Your task to perform on an android device: stop showing notifications on the lock screen Image 0: 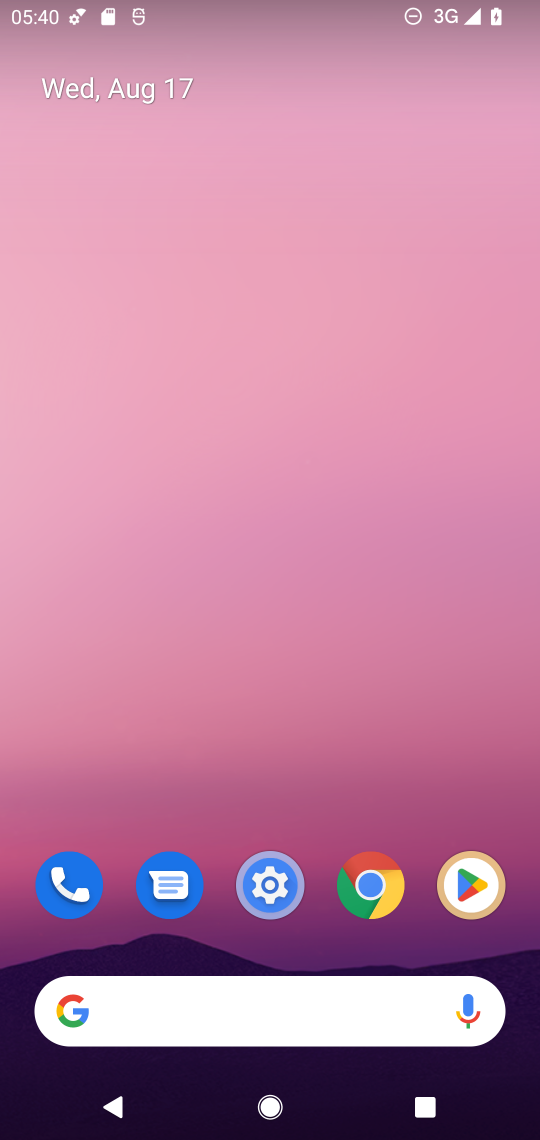
Step 0: drag from (308, 799) to (410, 144)
Your task to perform on an android device: stop showing notifications on the lock screen Image 1: 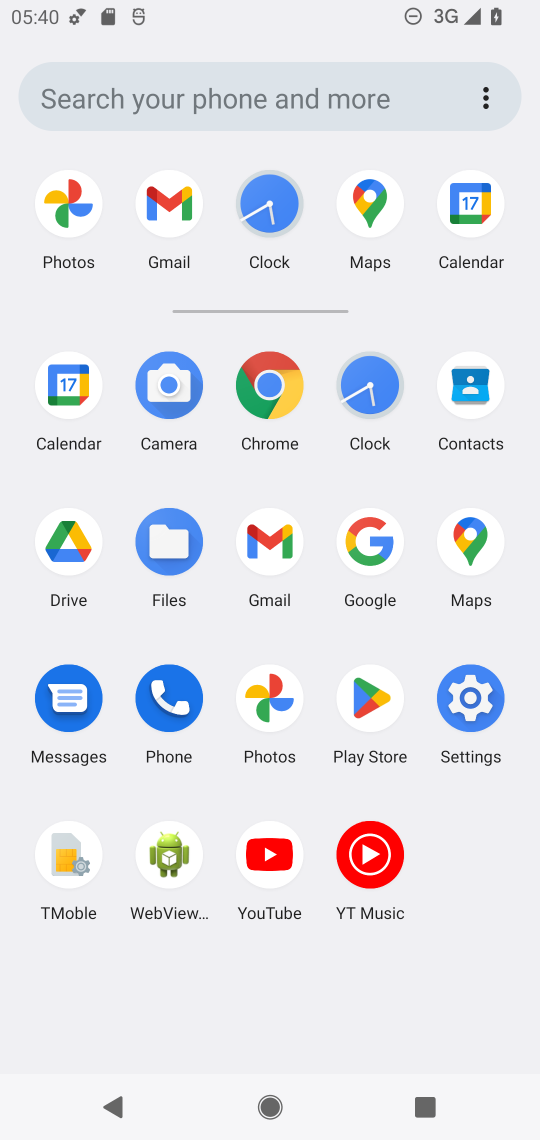
Step 1: click (482, 701)
Your task to perform on an android device: stop showing notifications on the lock screen Image 2: 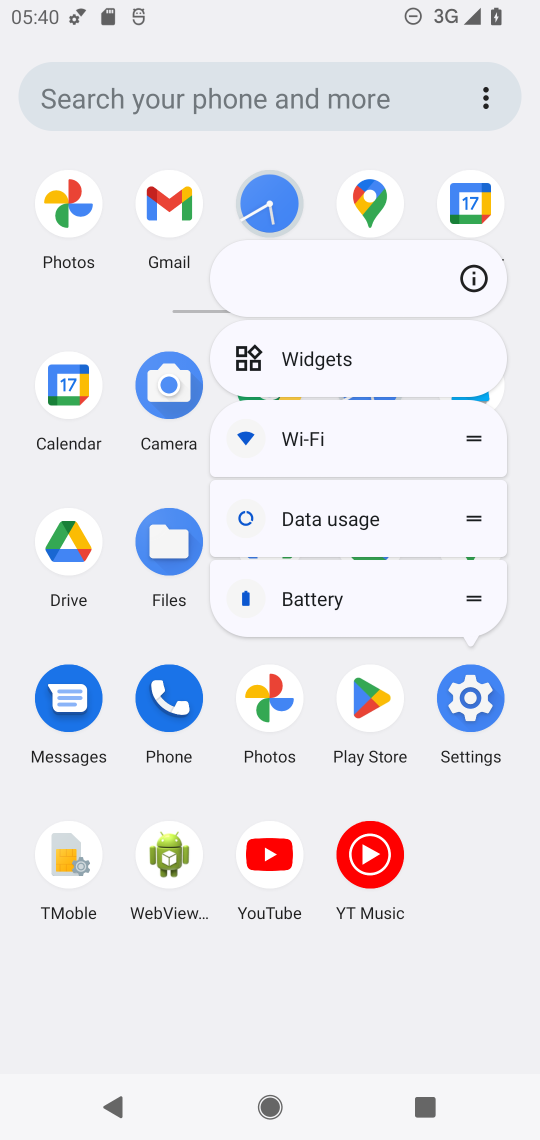
Step 2: click (482, 701)
Your task to perform on an android device: stop showing notifications on the lock screen Image 3: 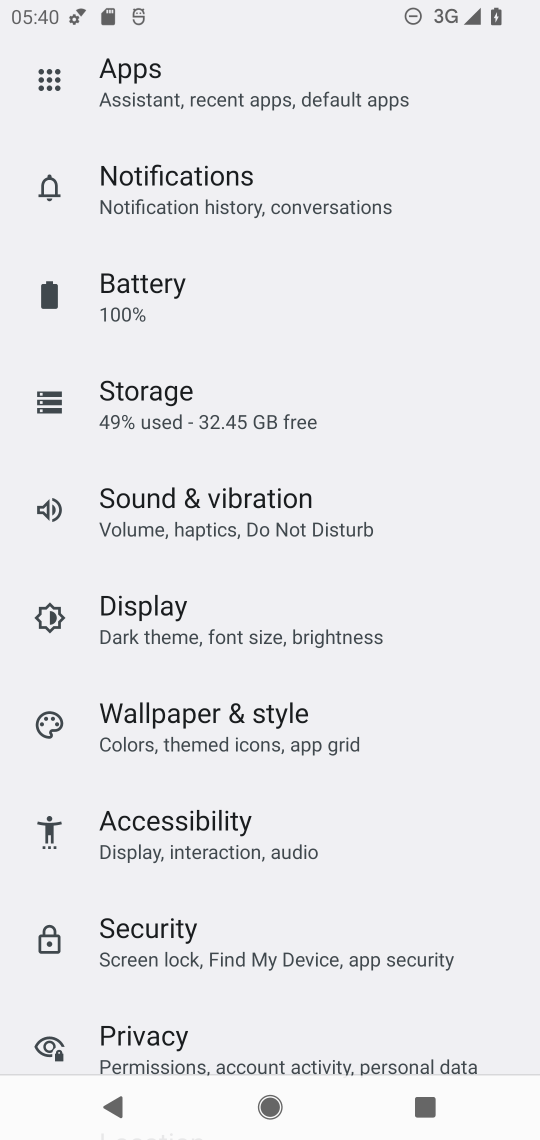
Step 3: click (322, 196)
Your task to perform on an android device: stop showing notifications on the lock screen Image 4: 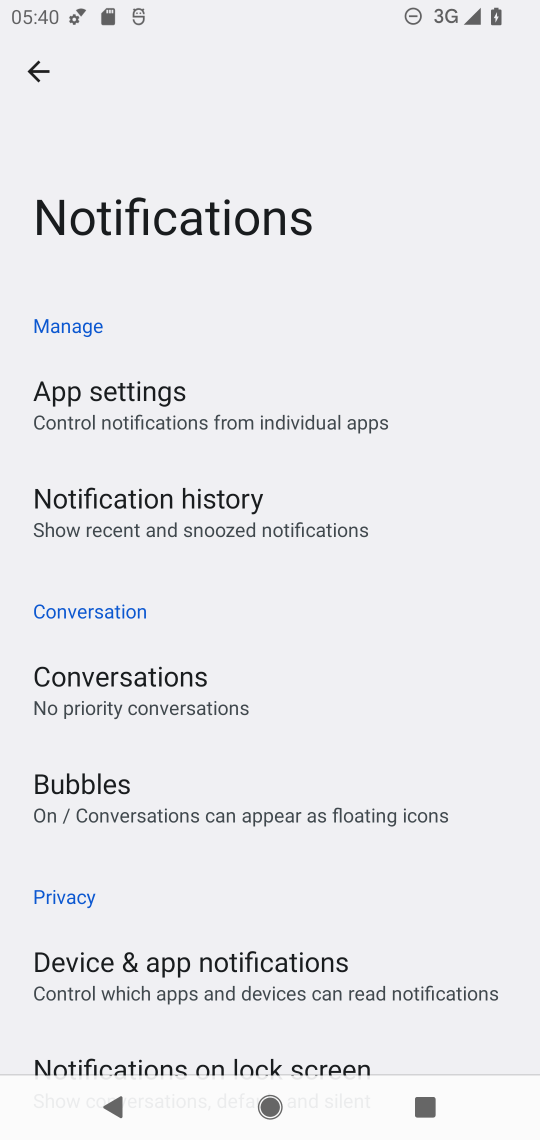
Step 4: drag from (325, 799) to (382, 282)
Your task to perform on an android device: stop showing notifications on the lock screen Image 5: 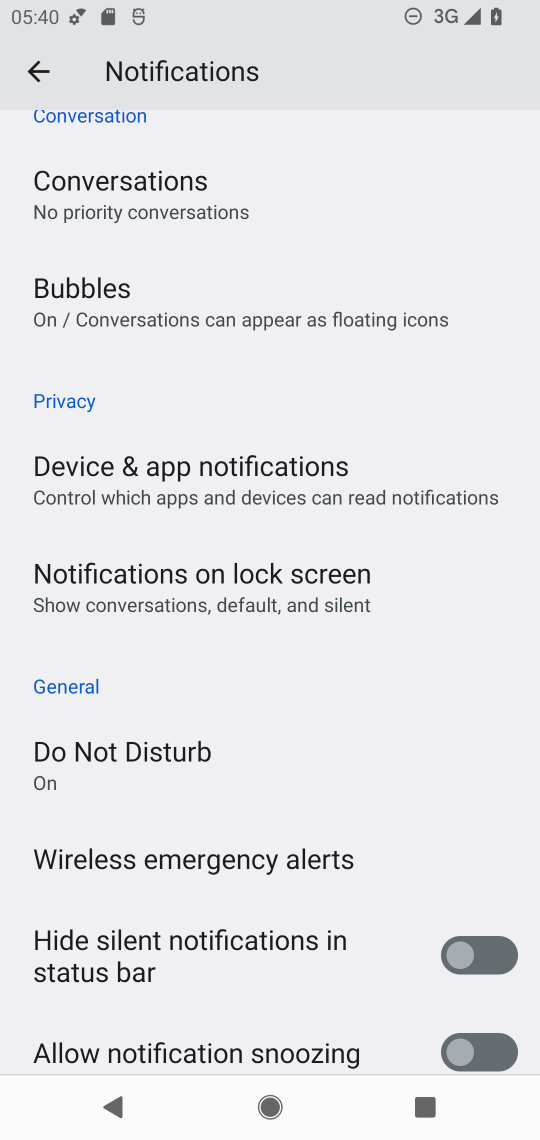
Step 5: click (305, 597)
Your task to perform on an android device: stop showing notifications on the lock screen Image 6: 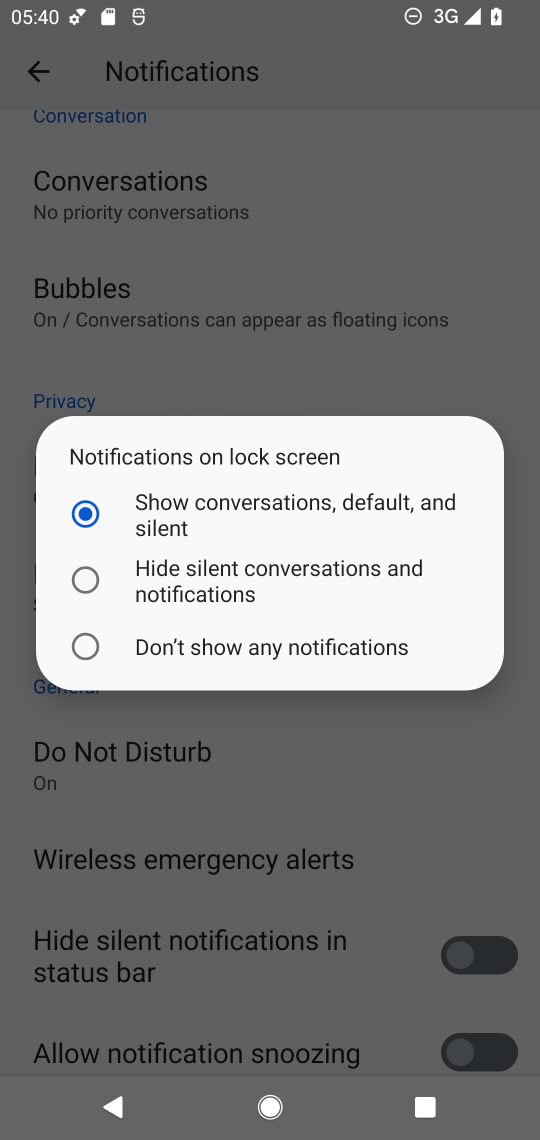
Step 6: click (250, 651)
Your task to perform on an android device: stop showing notifications on the lock screen Image 7: 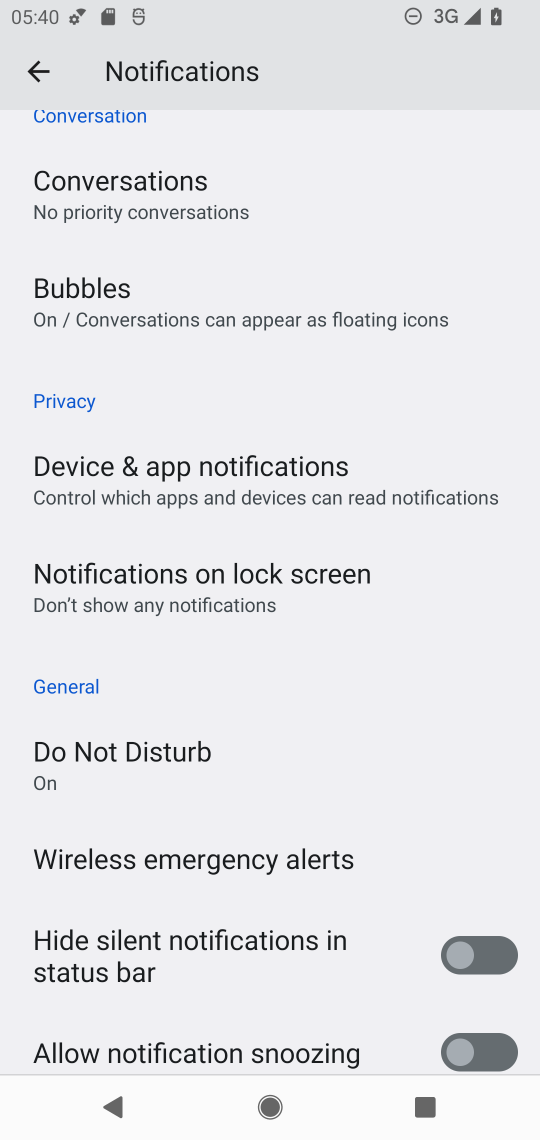
Step 7: task complete